Your task to perform on an android device: change notification settings in the gmail app Image 0: 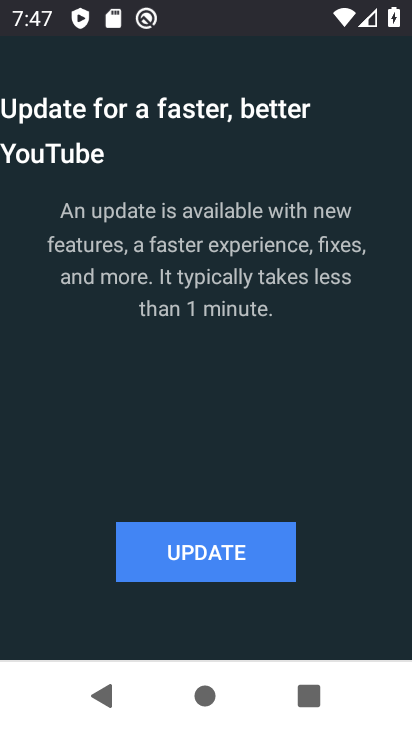
Step 0: press back button
Your task to perform on an android device: change notification settings in the gmail app Image 1: 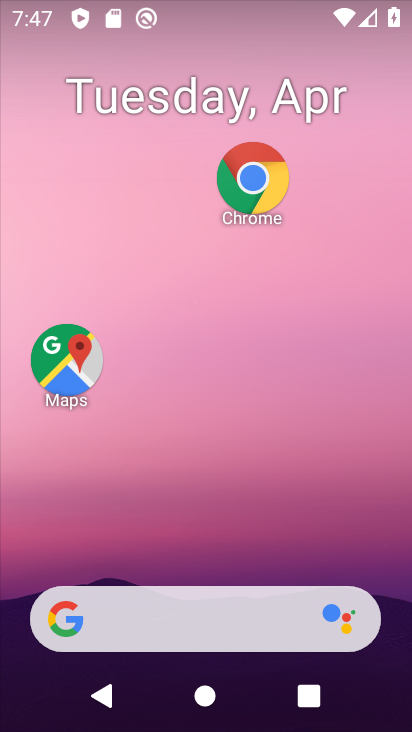
Step 1: drag from (206, 724) to (202, 58)
Your task to perform on an android device: change notification settings in the gmail app Image 2: 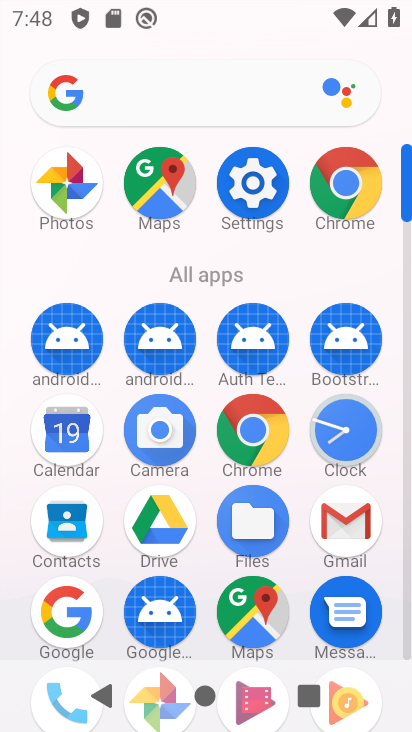
Step 2: click (347, 519)
Your task to perform on an android device: change notification settings in the gmail app Image 3: 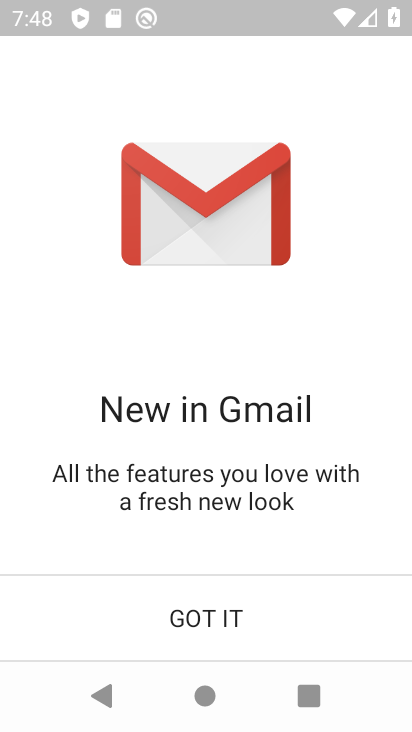
Step 3: click (213, 616)
Your task to perform on an android device: change notification settings in the gmail app Image 4: 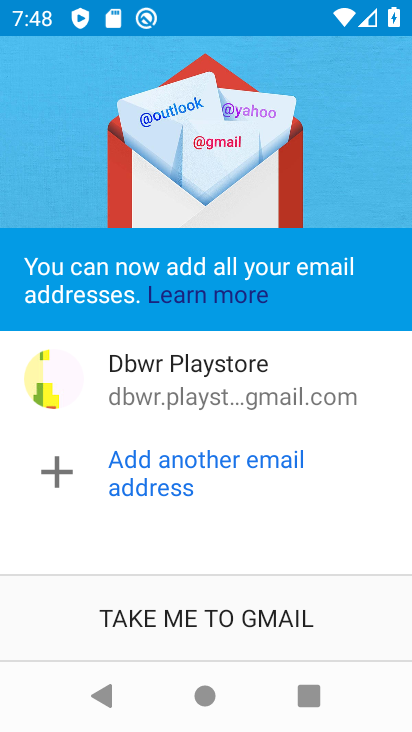
Step 4: click (222, 615)
Your task to perform on an android device: change notification settings in the gmail app Image 5: 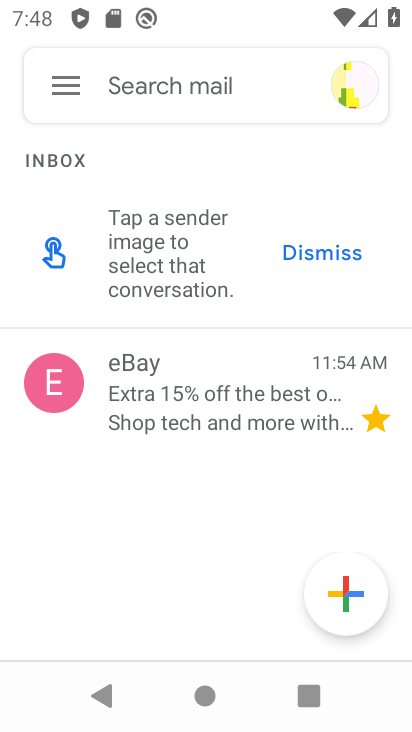
Step 5: click (64, 87)
Your task to perform on an android device: change notification settings in the gmail app Image 6: 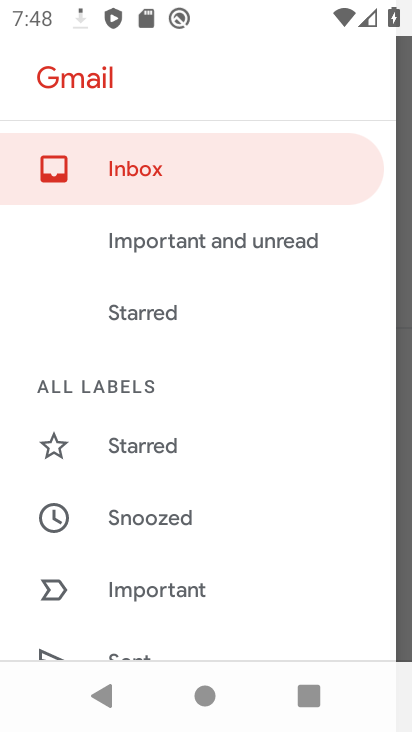
Step 6: drag from (179, 611) to (186, 303)
Your task to perform on an android device: change notification settings in the gmail app Image 7: 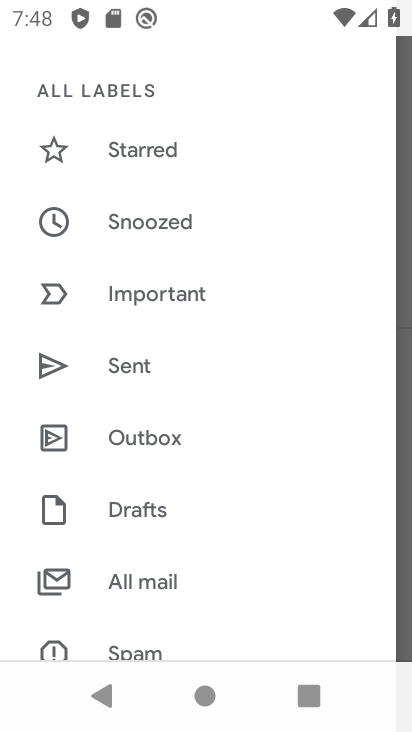
Step 7: drag from (191, 618) to (194, 292)
Your task to perform on an android device: change notification settings in the gmail app Image 8: 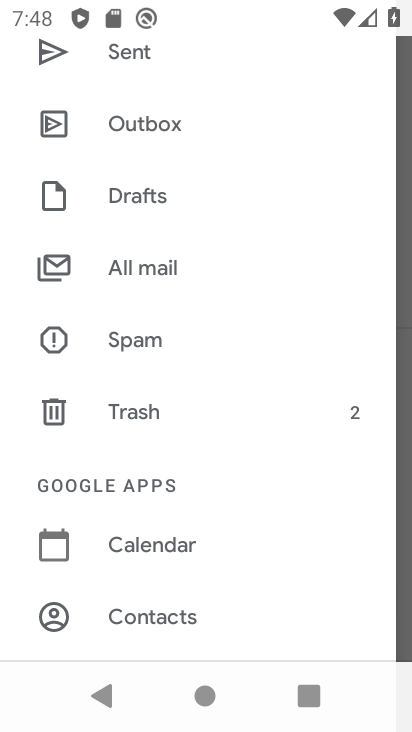
Step 8: drag from (210, 638) to (196, 242)
Your task to perform on an android device: change notification settings in the gmail app Image 9: 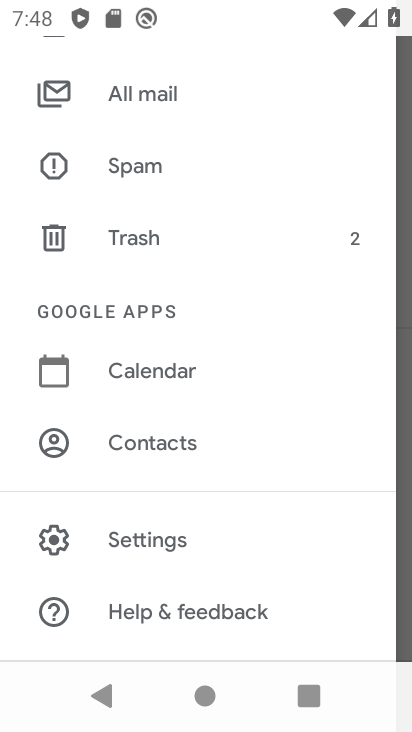
Step 9: click (150, 536)
Your task to perform on an android device: change notification settings in the gmail app Image 10: 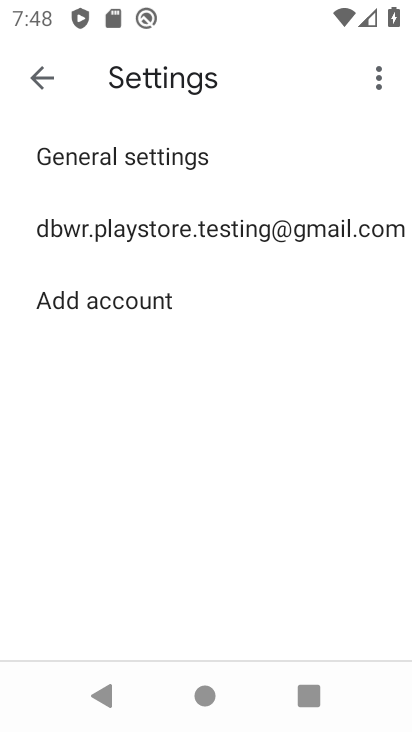
Step 10: click (162, 227)
Your task to perform on an android device: change notification settings in the gmail app Image 11: 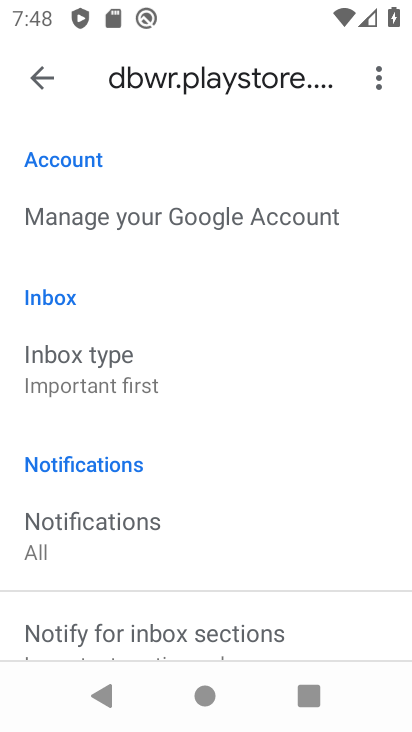
Step 11: click (112, 513)
Your task to perform on an android device: change notification settings in the gmail app Image 12: 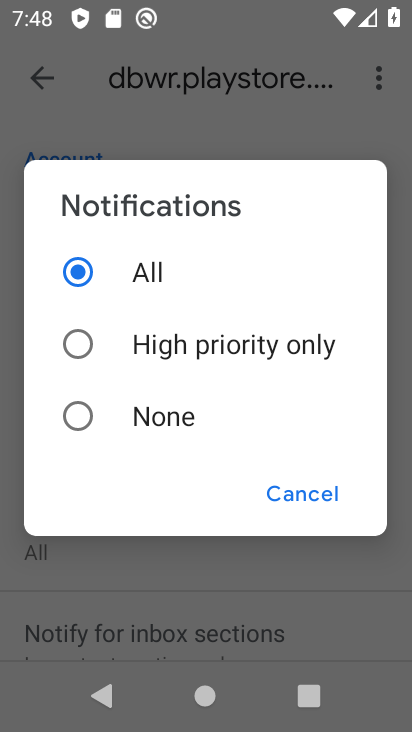
Step 12: click (90, 347)
Your task to perform on an android device: change notification settings in the gmail app Image 13: 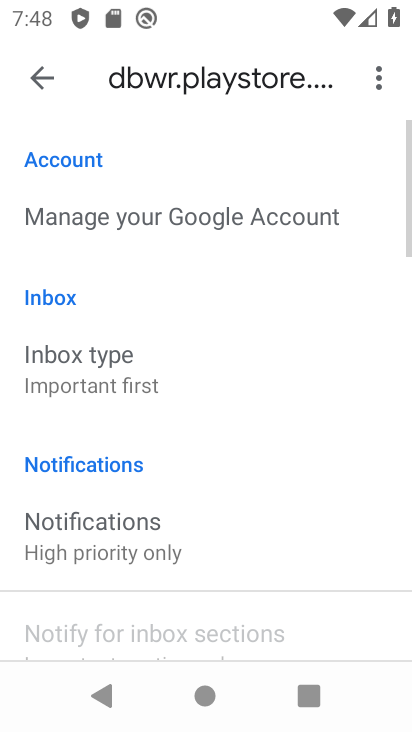
Step 13: task complete